Your task to perform on an android device: add a label to a message in the gmail app Image 0: 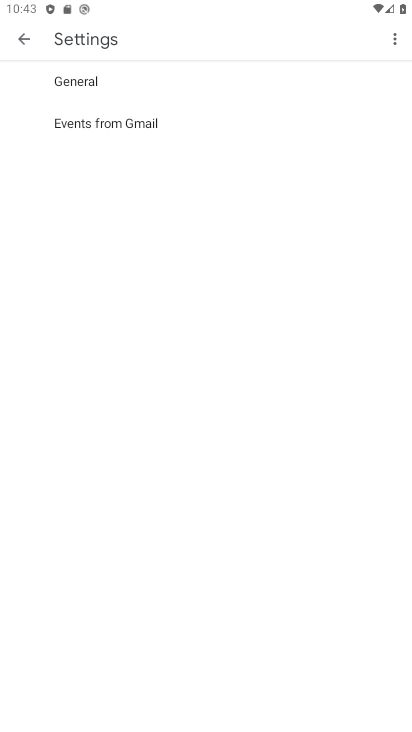
Step 0: press home button
Your task to perform on an android device: add a label to a message in the gmail app Image 1: 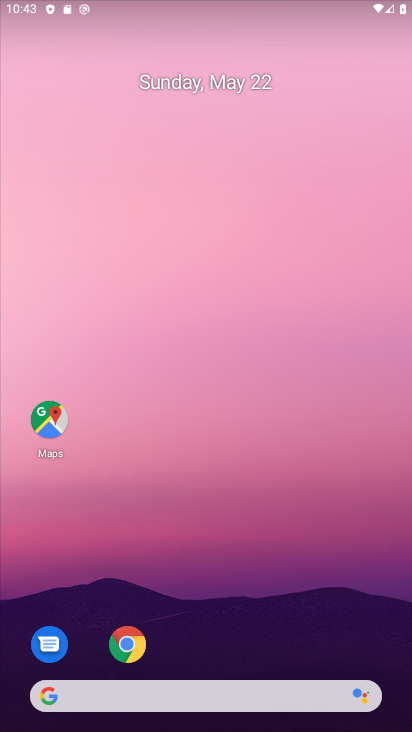
Step 1: drag from (324, 644) to (270, 82)
Your task to perform on an android device: add a label to a message in the gmail app Image 2: 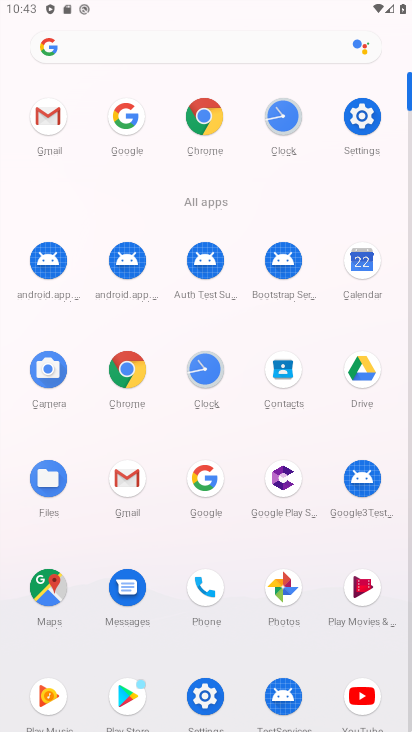
Step 2: click (120, 492)
Your task to perform on an android device: add a label to a message in the gmail app Image 3: 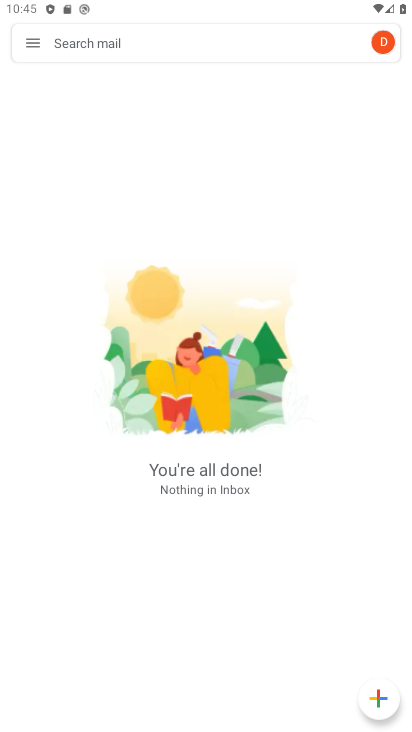
Step 3: task complete